Your task to perform on an android device: Open Google Maps and go to "Timeline" Image 0: 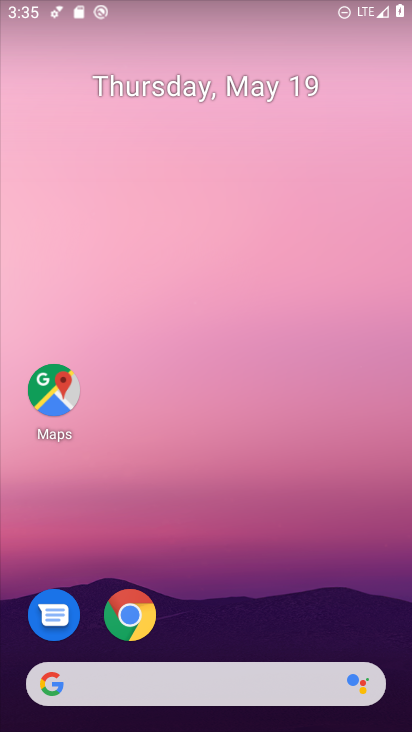
Step 0: click (56, 412)
Your task to perform on an android device: Open Google Maps and go to "Timeline" Image 1: 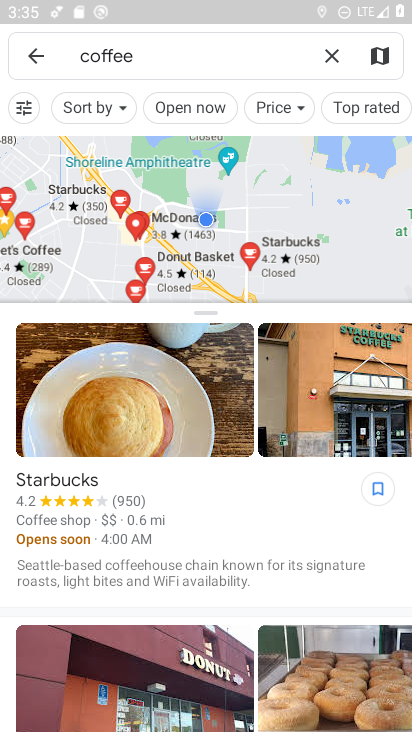
Step 1: click (38, 45)
Your task to perform on an android device: Open Google Maps and go to "Timeline" Image 2: 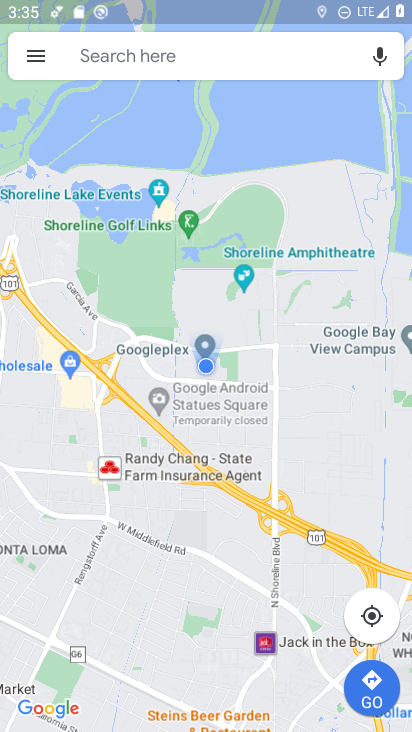
Step 2: click (36, 56)
Your task to perform on an android device: Open Google Maps and go to "Timeline" Image 3: 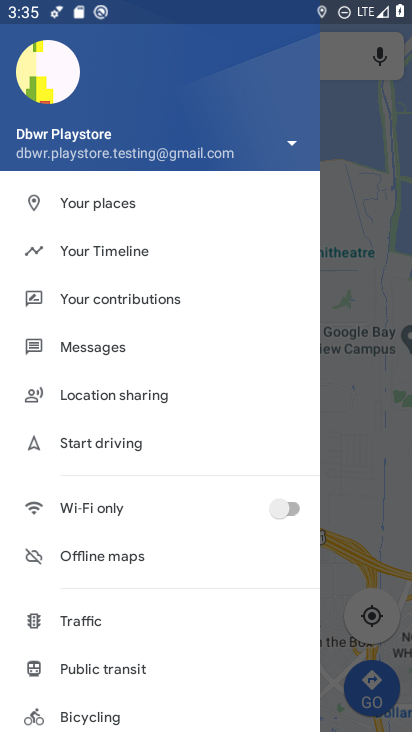
Step 3: click (118, 265)
Your task to perform on an android device: Open Google Maps and go to "Timeline" Image 4: 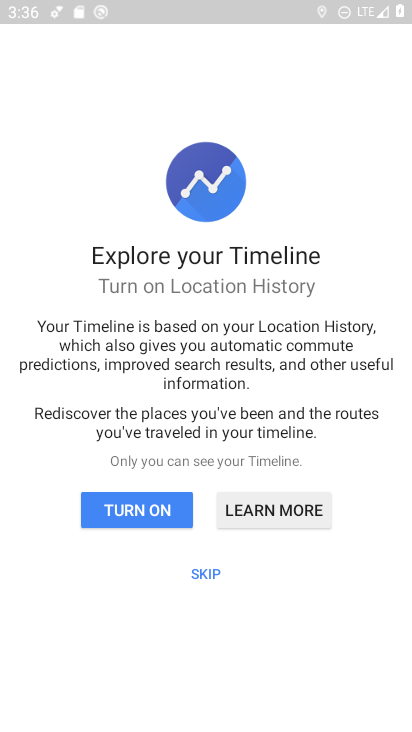
Step 4: click (198, 578)
Your task to perform on an android device: Open Google Maps and go to "Timeline" Image 5: 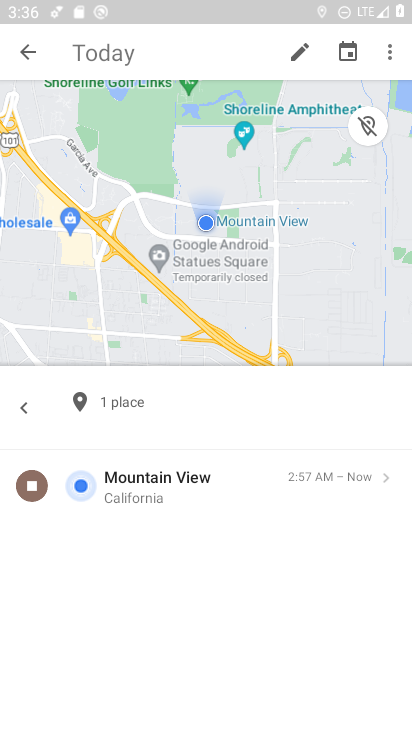
Step 5: task complete